Your task to perform on an android device: Open network settings Image 0: 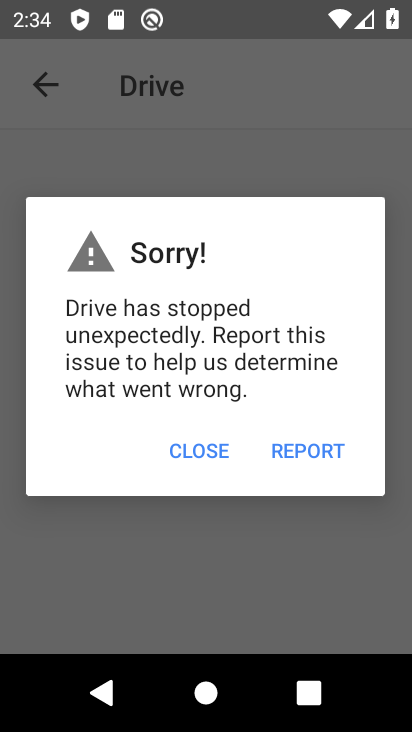
Step 0: press home button
Your task to perform on an android device: Open network settings Image 1: 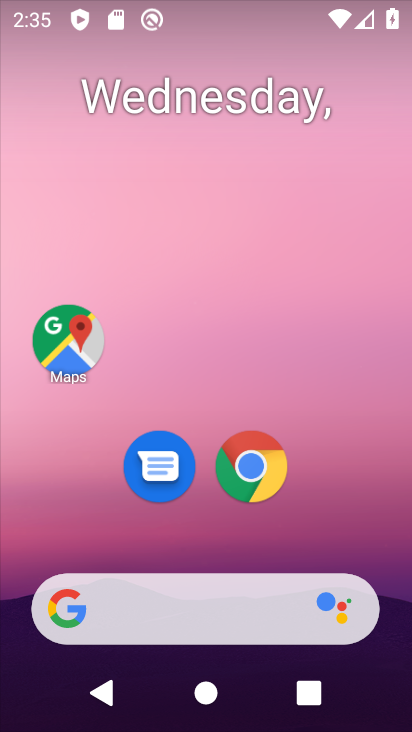
Step 1: drag from (368, 533) to (238, 77)
Your task to perform on an android device: Open network settings Image 2: 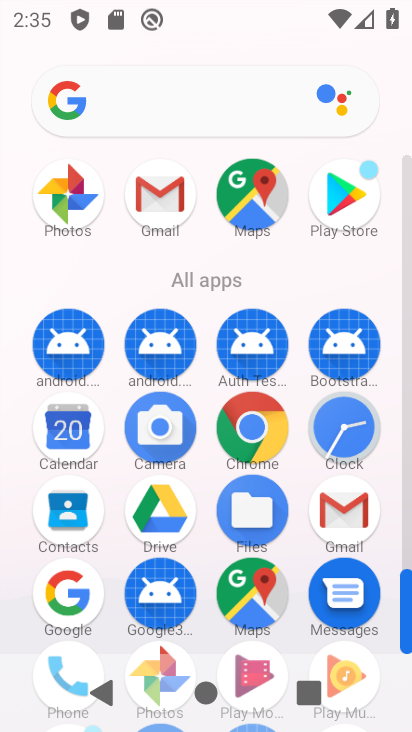
Step 2: drag from (405, 558) to (387, 450)
Your task to perform on an android device: Open network settings Image 3: 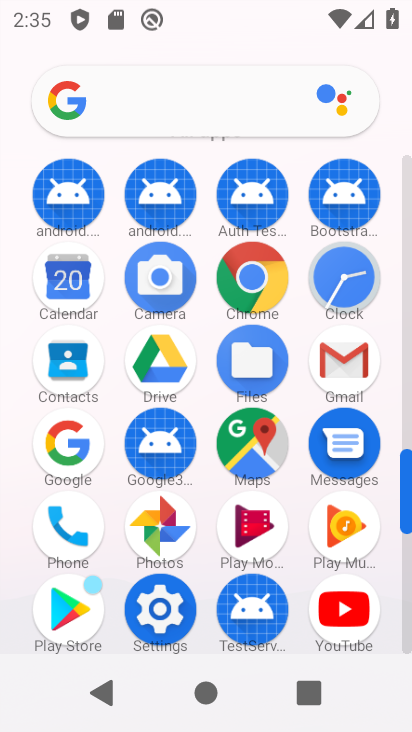
Step 3: click (154, 610)
Your task to perform on an android device: Open network settings Image 4: 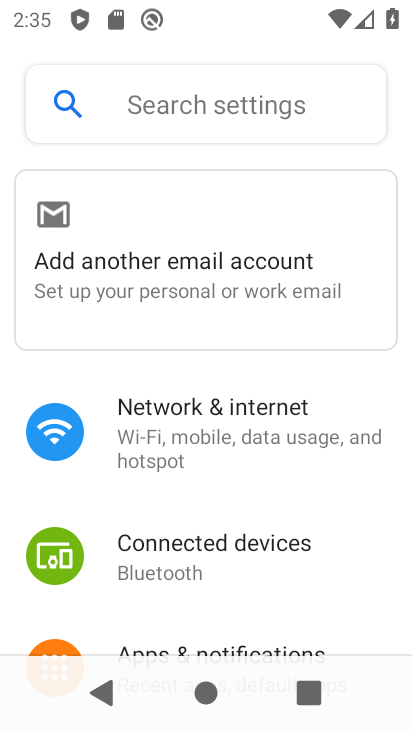
Step 4: click (205, 416)
Your task to perform on an android device: Open network settings Image 5: 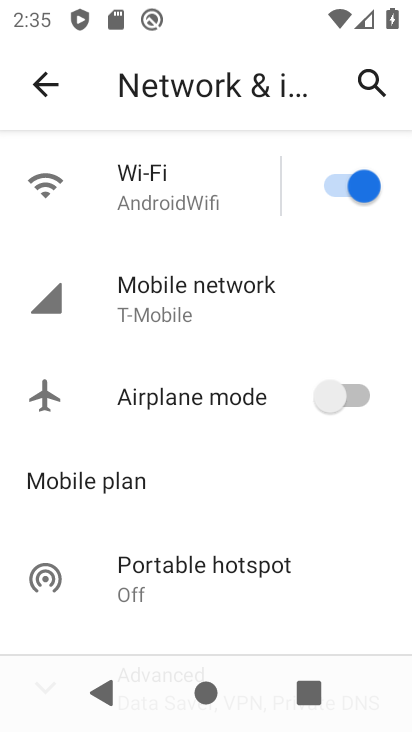
Step 5: drag from (167, 520) to (191, 175)
Your task to perform on an android device: Open network settings Image 6: 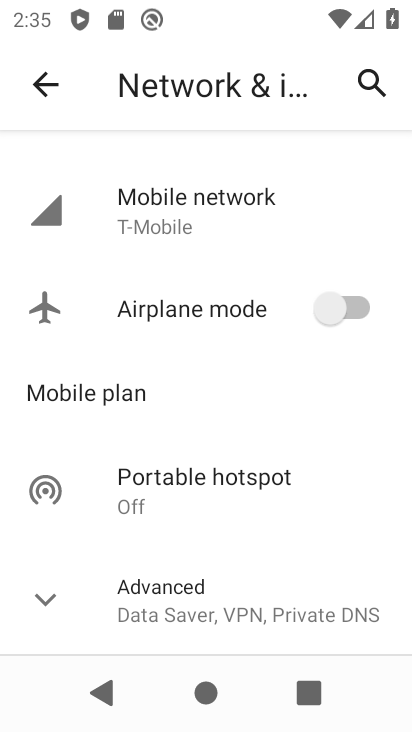
Step 6: click (46, 595)
Your task to perform on an android device: Open network settings Image 7: 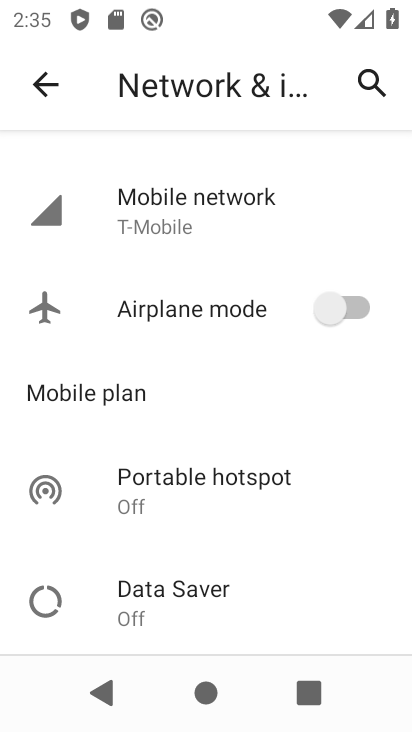
Step 7: task complete